Your task to perform on an android device: Is it going to rain today? Image 0: 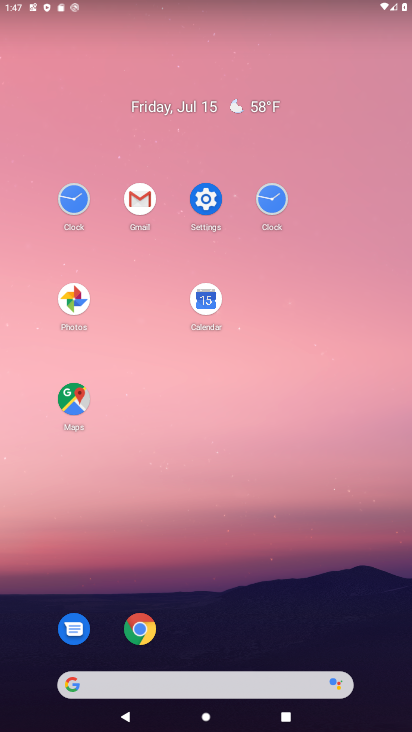
Step 0: click (147, 621)
Your task to perform on an android device: Is it going to rain today? Image 1: 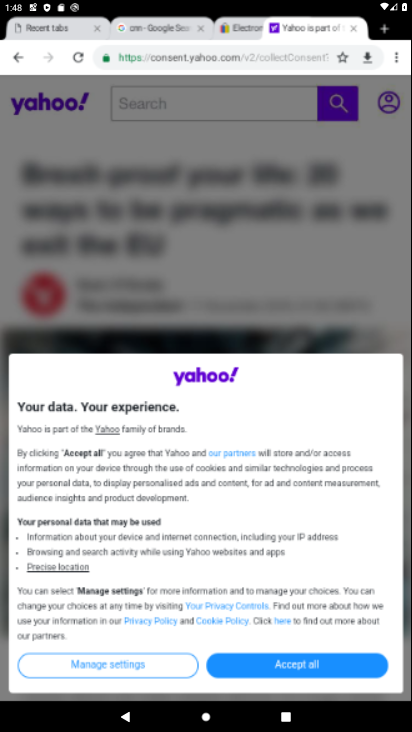
Step 1: click (385, 31)
Your task to perform on an android device: Is it going to rain today? Image 2: 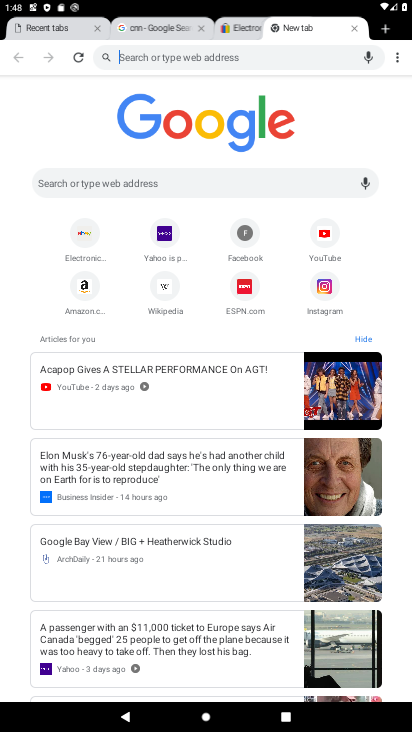
Step 2: click (169, 186)
Your task to perform on an android device: Is it going to rain today? Image 3: 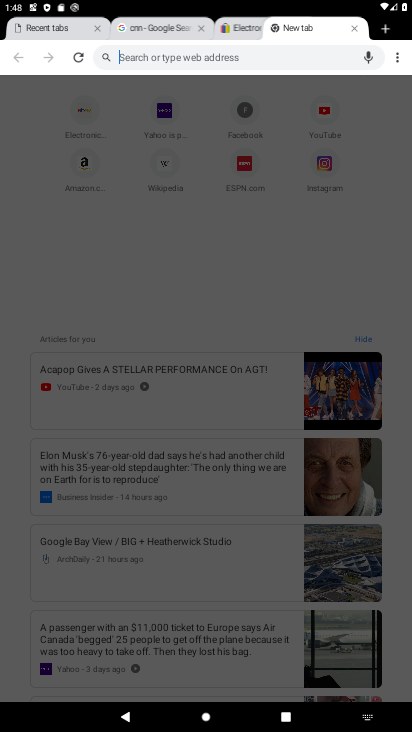
Step 3: type "weather"
Your task to perform on an android device: Is it going to rain today? Image 4: 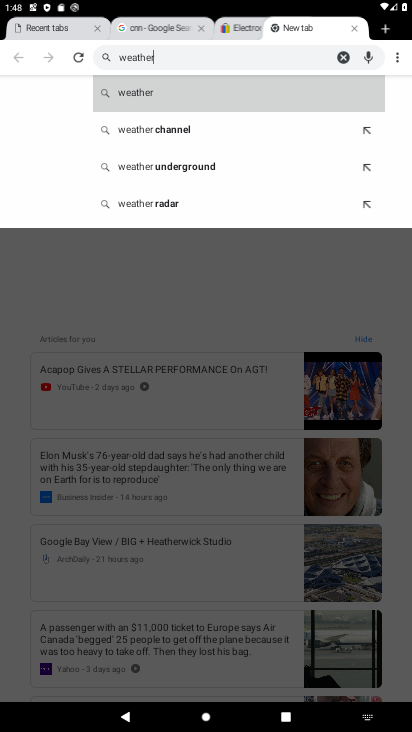
Step 4: click (189, 95)
Your task to perform on an android device: Is it going to rain today? Image 5: 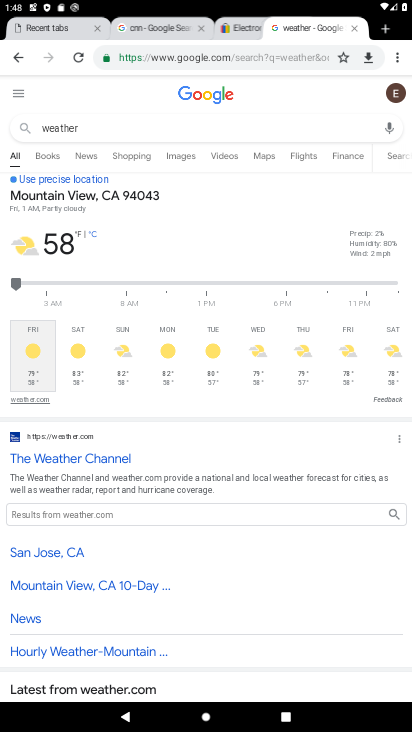
Step 5: task complete